Your task to perform on an android device: open app "Skype" (install if not already installed) Image 0: 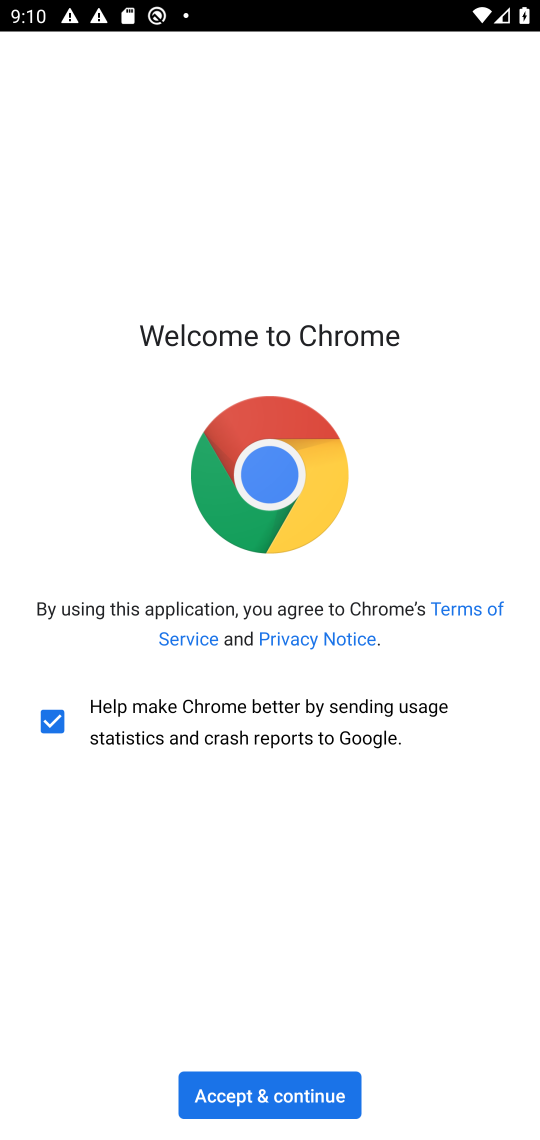
Step 0: press back button
Your task to perform on an android device: open app "Skype" (install if not already installed) Image 1: 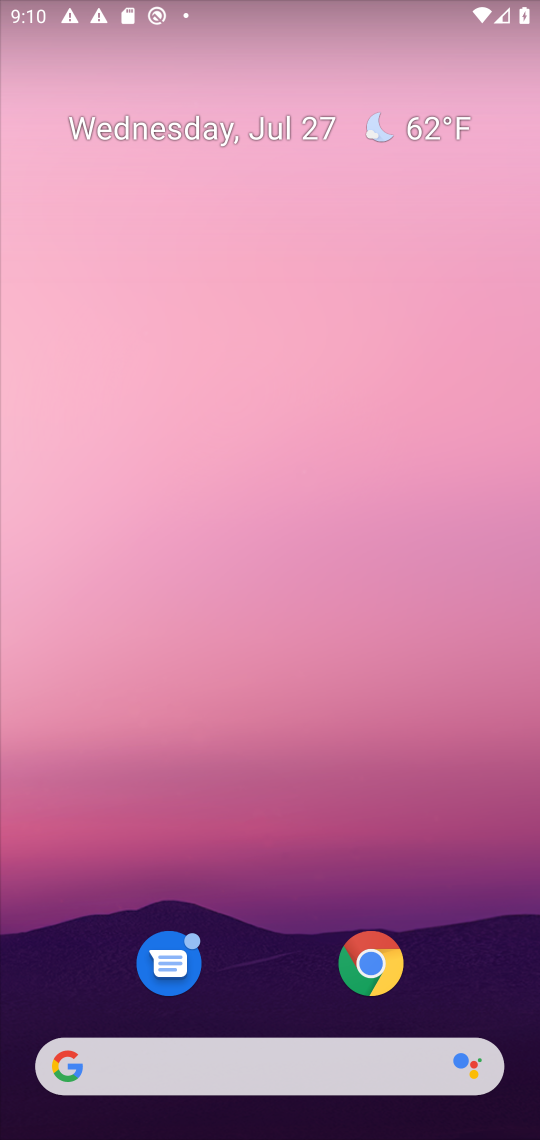
Step 1: drag from (276, 1022) to (417, 225)
Your task to perform on an android device: open app "Skype" (install if not already installed) Image 2: 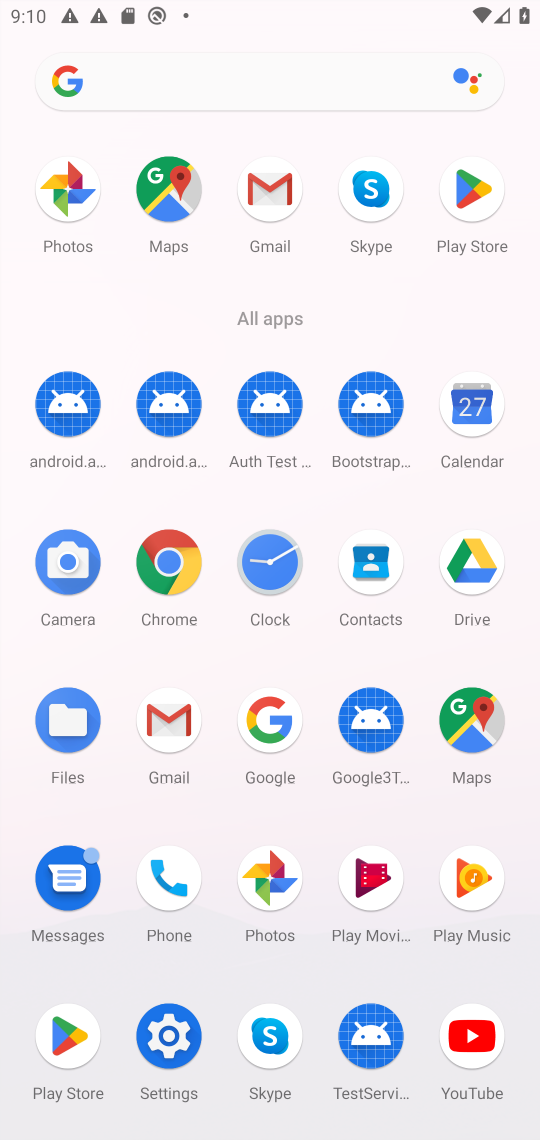
Step 2: click (393, 215)
Your task to perform on an android device: open app "Skype" (install if not already installed) Image 3: 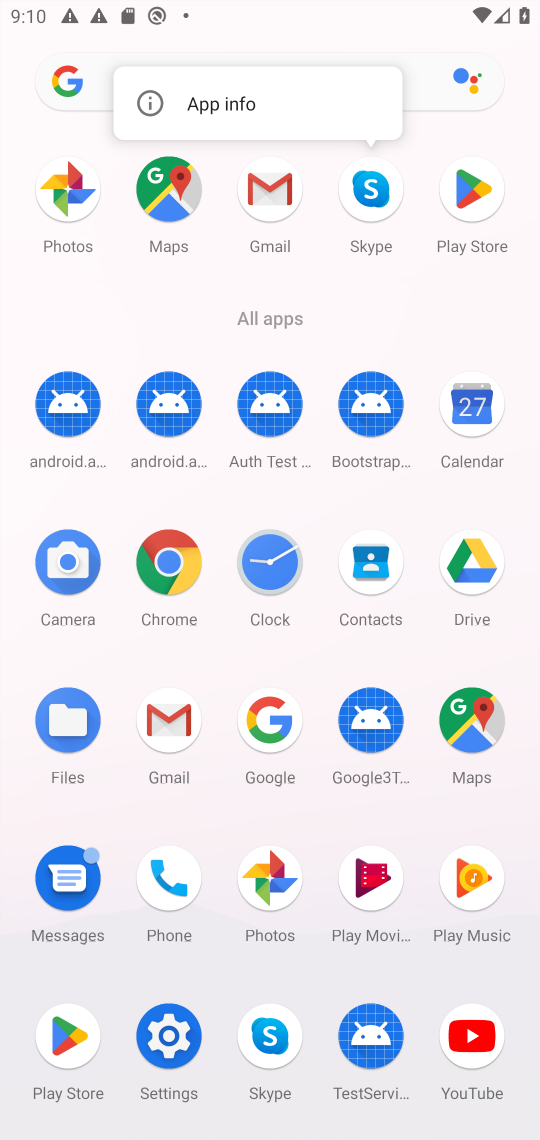
Step 3: click (387, 205)
Your task to perform on an android device: open app "Skype" (install if not already installed) Image 4: 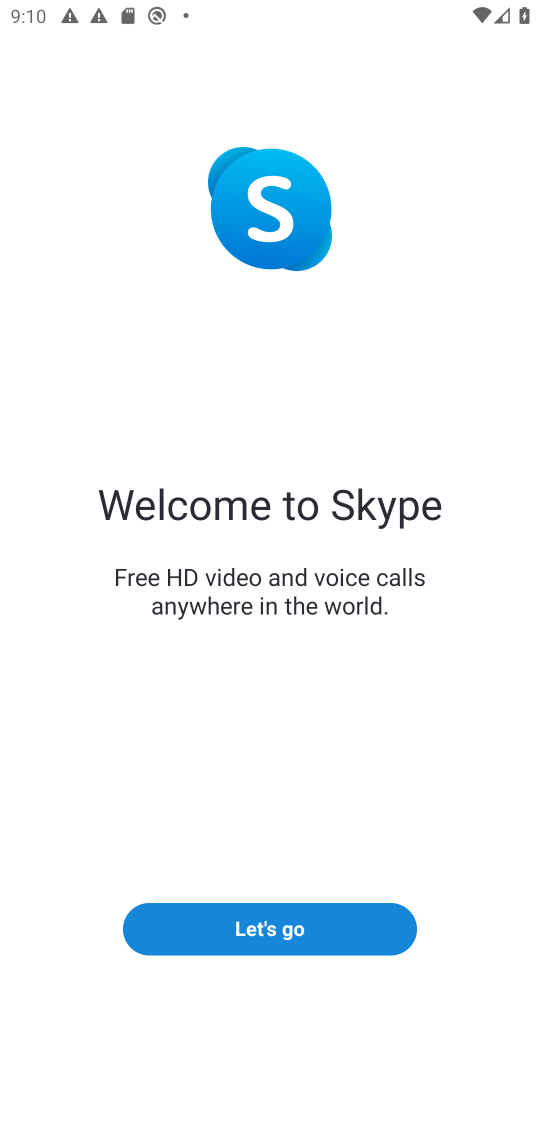
Step 4: task complete